Your task to perform on an android device: Open Google Chrome and open the bookmarks view Image 0: 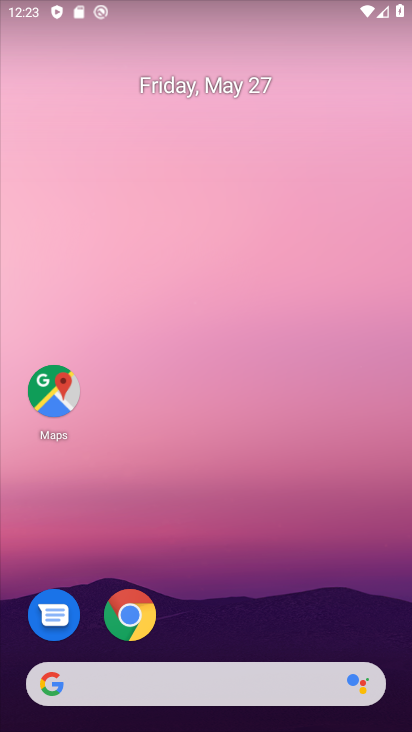
Step 0: click (126, 619)
Your task to perform on an android device: Open Google Chrome and open the bookmarks view Image 1: 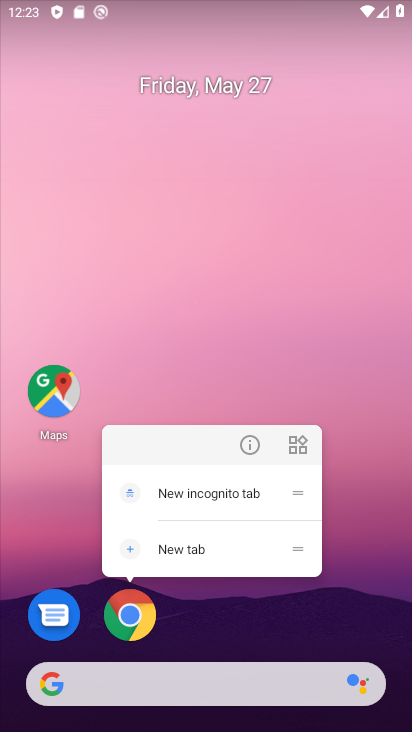
Step 1: click (262, 631)
Your task to perform on an android device: Open Google Chrome and open the bookmarks view Image 2: 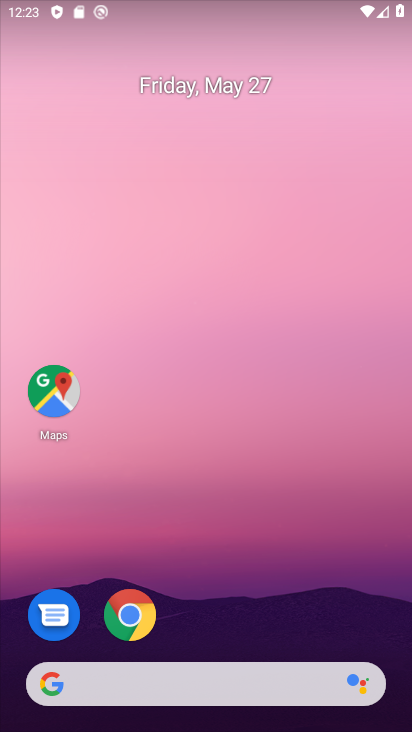
Step 2: drag from (262, 631) to (281, 46)
Your task to perform on an android device: Open Google Chrome and open the bookmarks view Image 3: 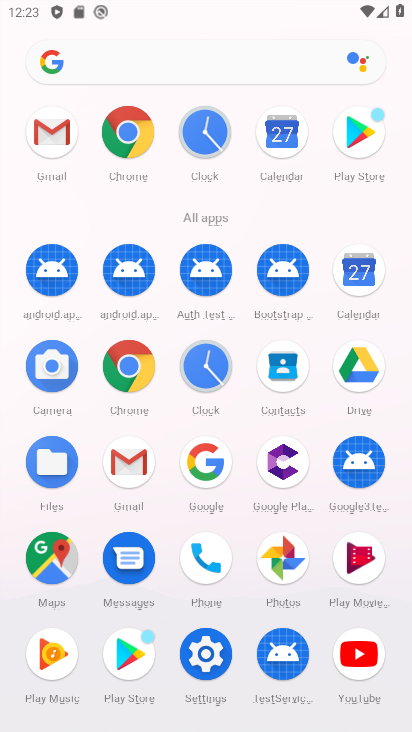
Step 3: click (127, 141)
Your task to perform on an android device: Open Google Chrome and open the bookmarks view Image 4: 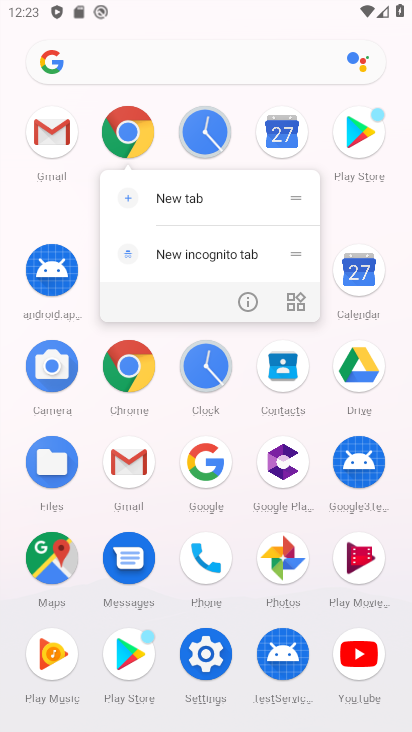
Step 4: click (141, 137)
Your task to perform on an android device: Open Google Chrome and open the bookmarks view Image 5: 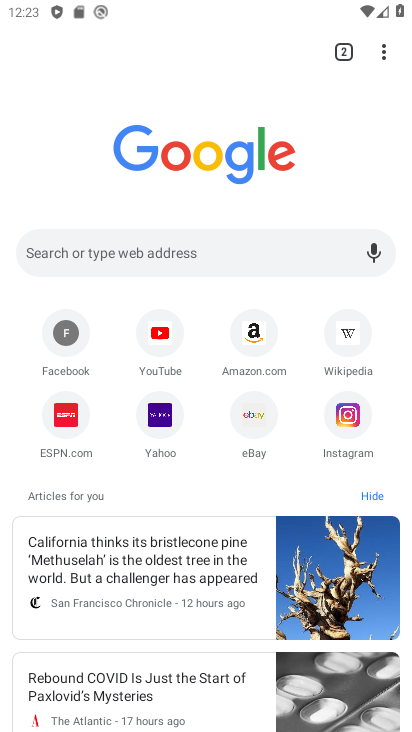
Step 5: task complete